Your task to perform on an android device: toggle priority inbox in the gmail app Image 0: 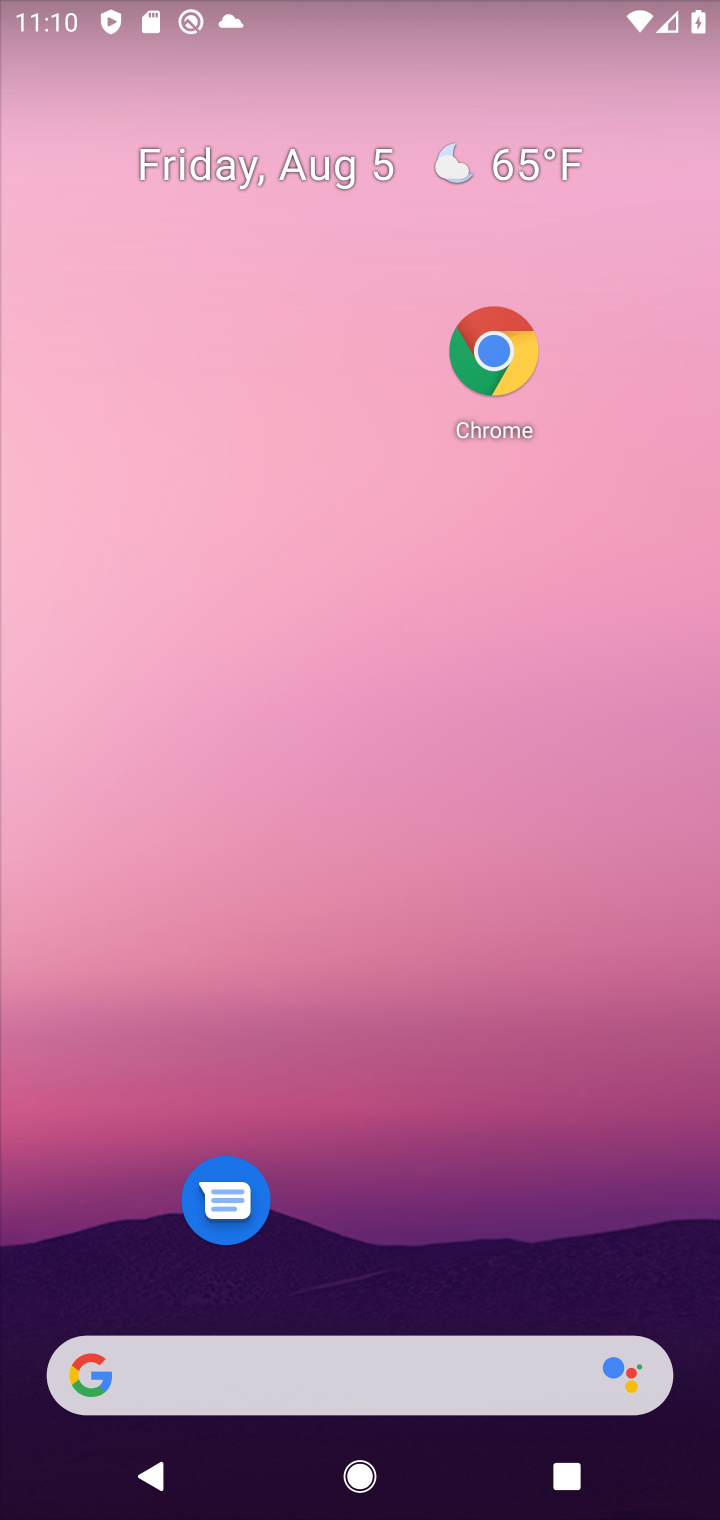
Step 0: drag from (447, 1128) to (591, 0)
Your task to perform on an android device: toggle priority inbox in the gmail app Image 1: 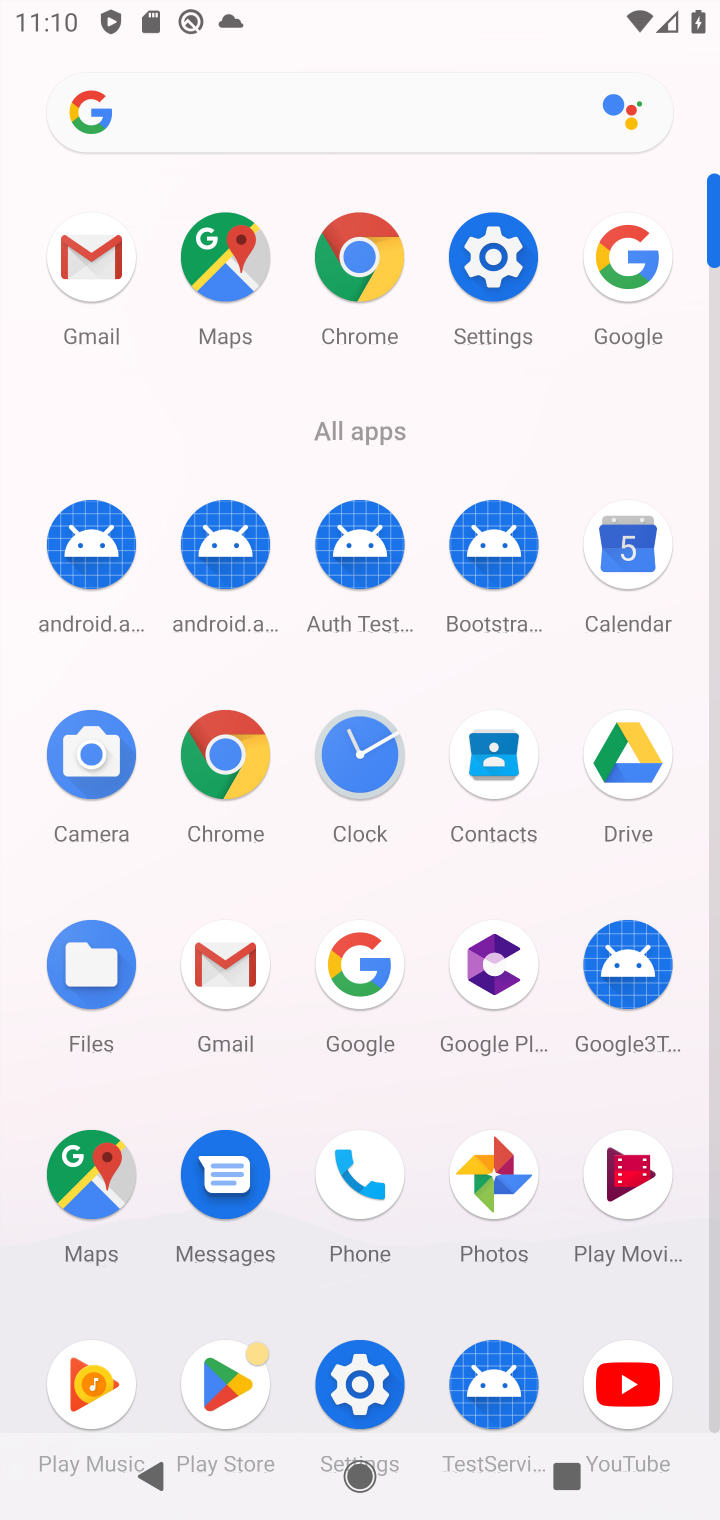
Step 1: click (237, 974)
Your task to perform on an android device: toggle priority inbox in the gmail app Image 2: 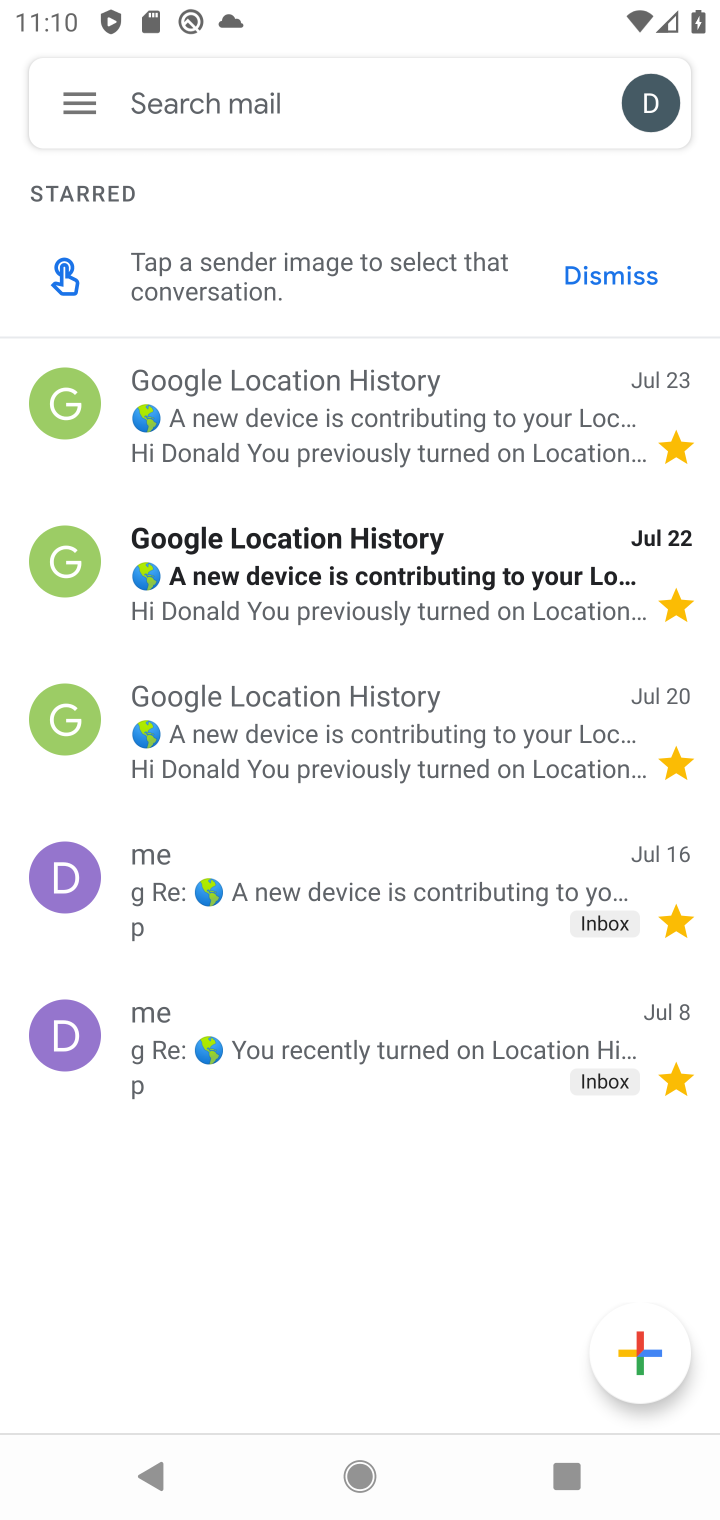
Step 2: click (83, 107)
Your task to perform on an android device: toggle priority inbox in the gmail app Image 3: 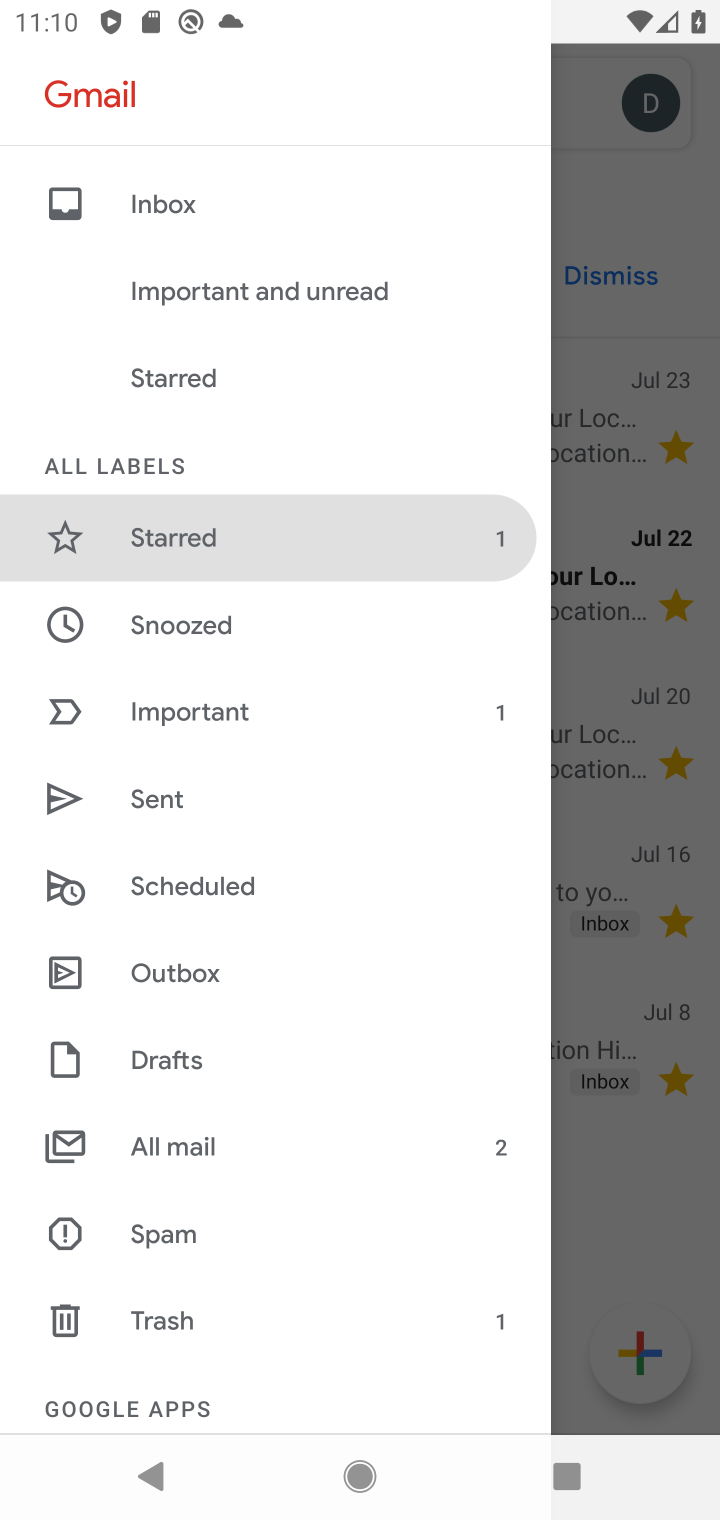
Step 3: drag from (238, 1272) to (335, 459)
Your task to perform on an android device: toggle priority inbox in the gmail app Image 4: 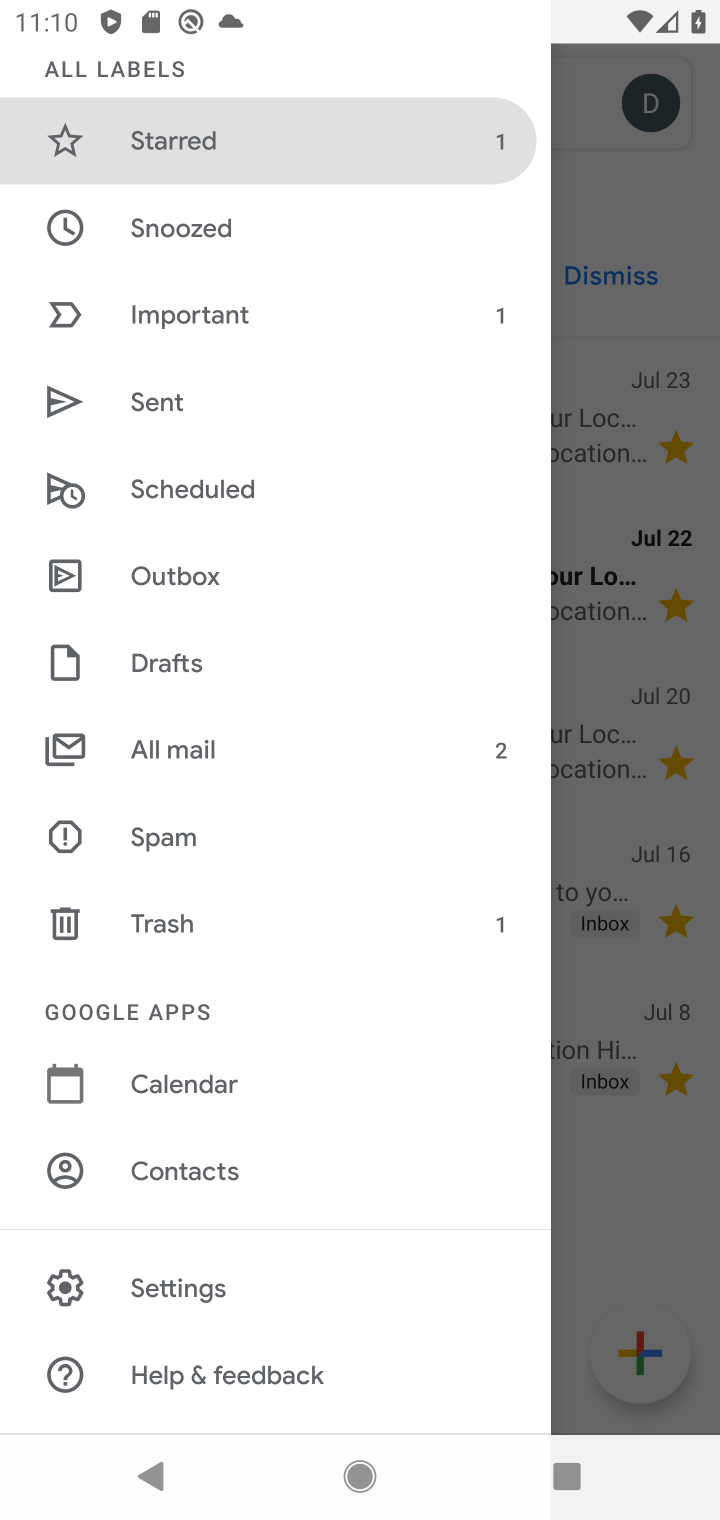
Step 4: click (174, 1299)
Your task to perform on an android device: toggle priority inbox in the gmail app Image 5: 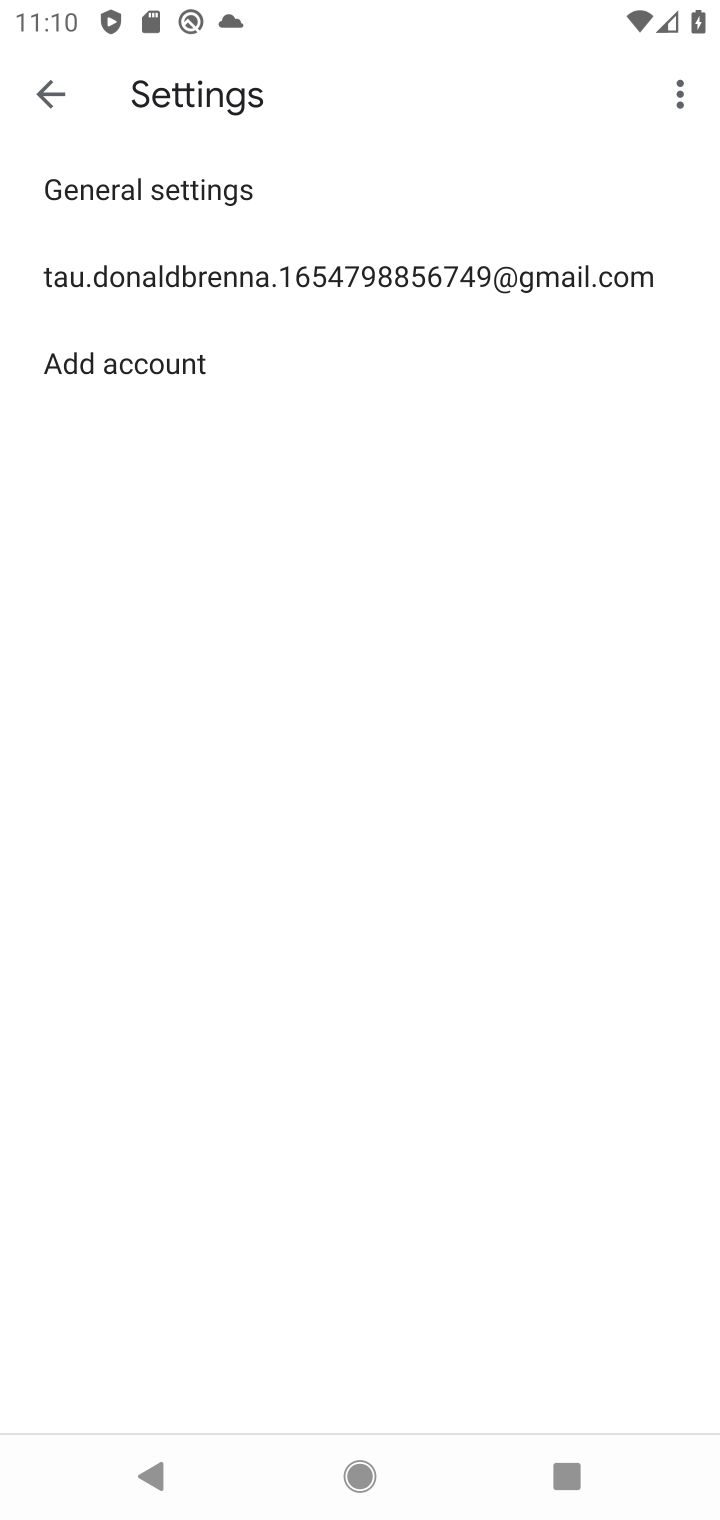
Step 5: click (188, 264)
Your task to perform on an android device: toggle priority inbox in the gmail app Image 6: 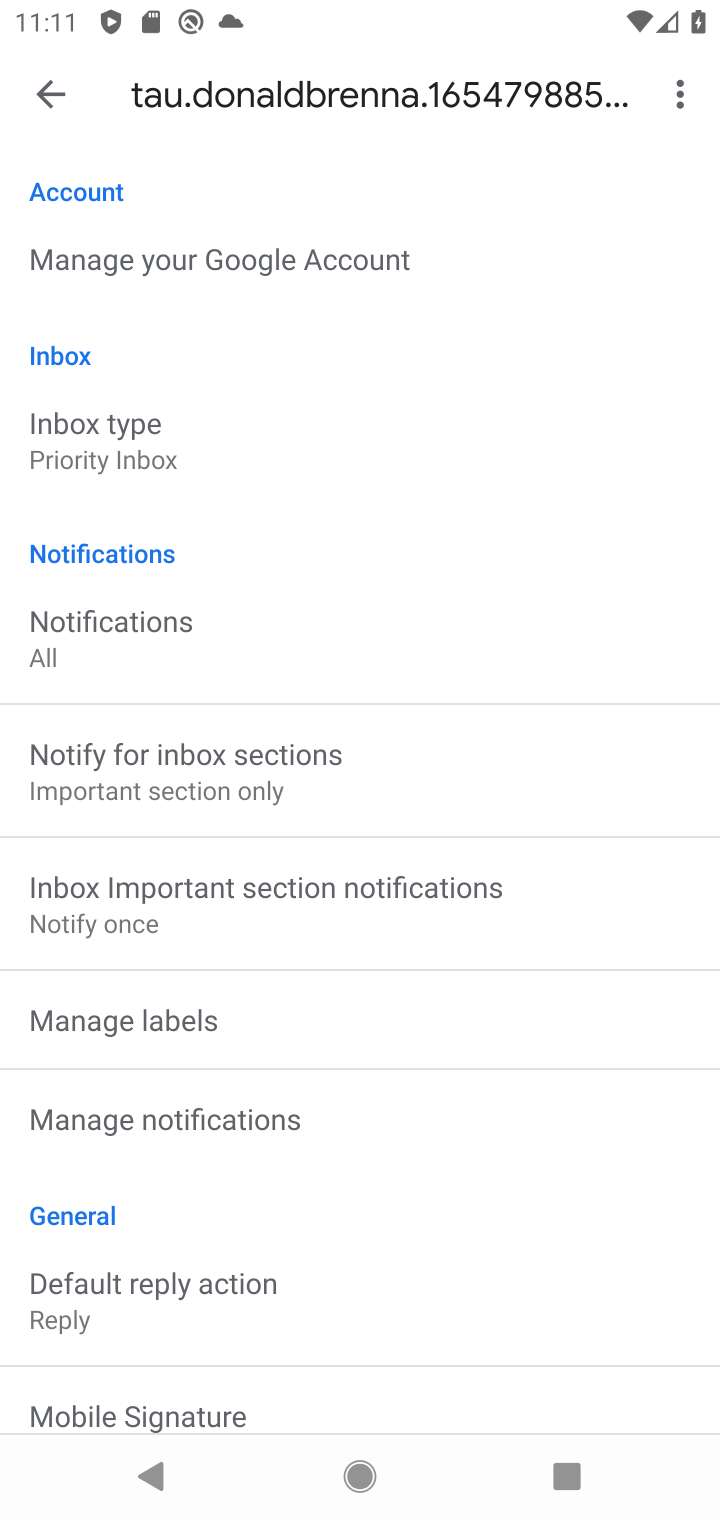
Step 6: drag from (134, 823) to (181, 441)
Your task to perform on an android device: toggle priority inbox in the gmail app Image 7: 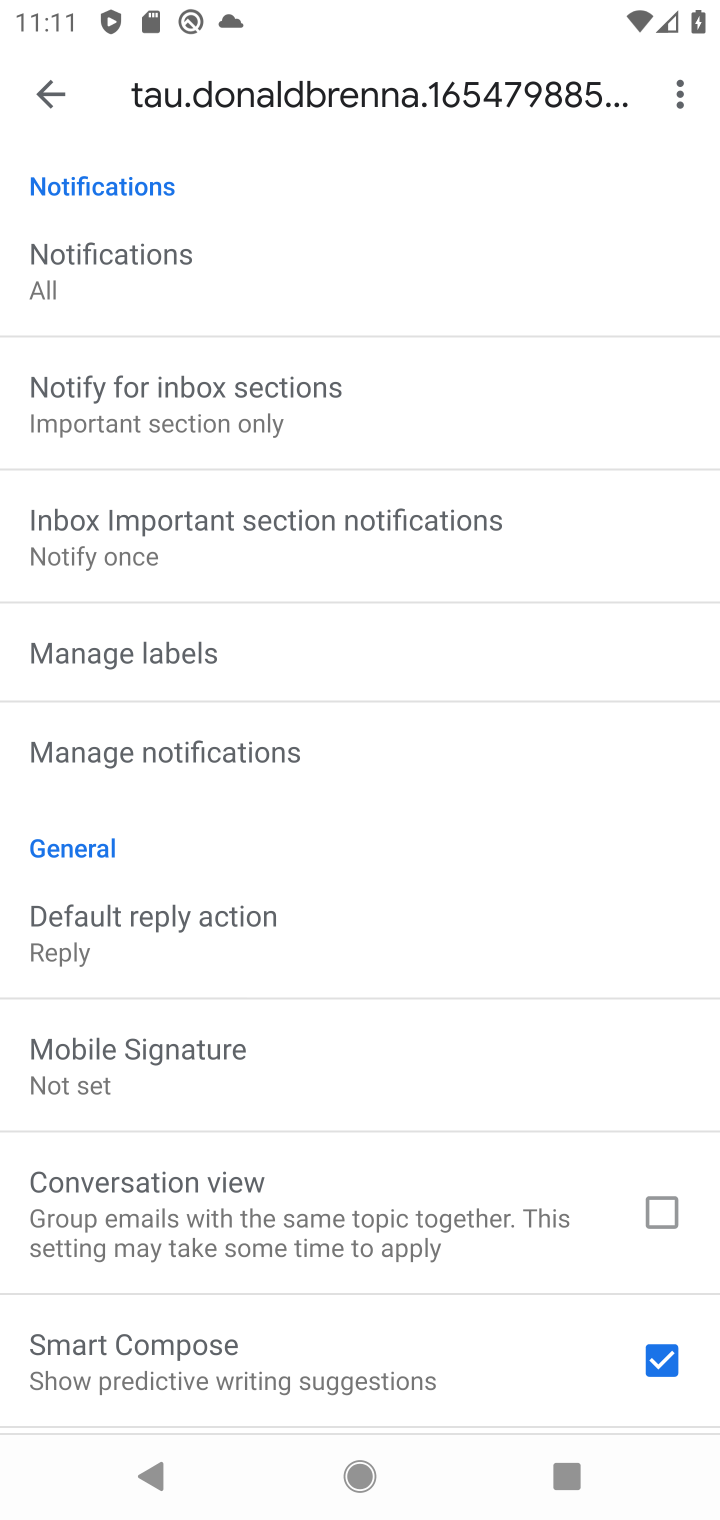
Step 7: drag from (212, 643) to (200, 1118)
Your task to perform on an android device: toggle priority inbox in the gmail app Image 8: 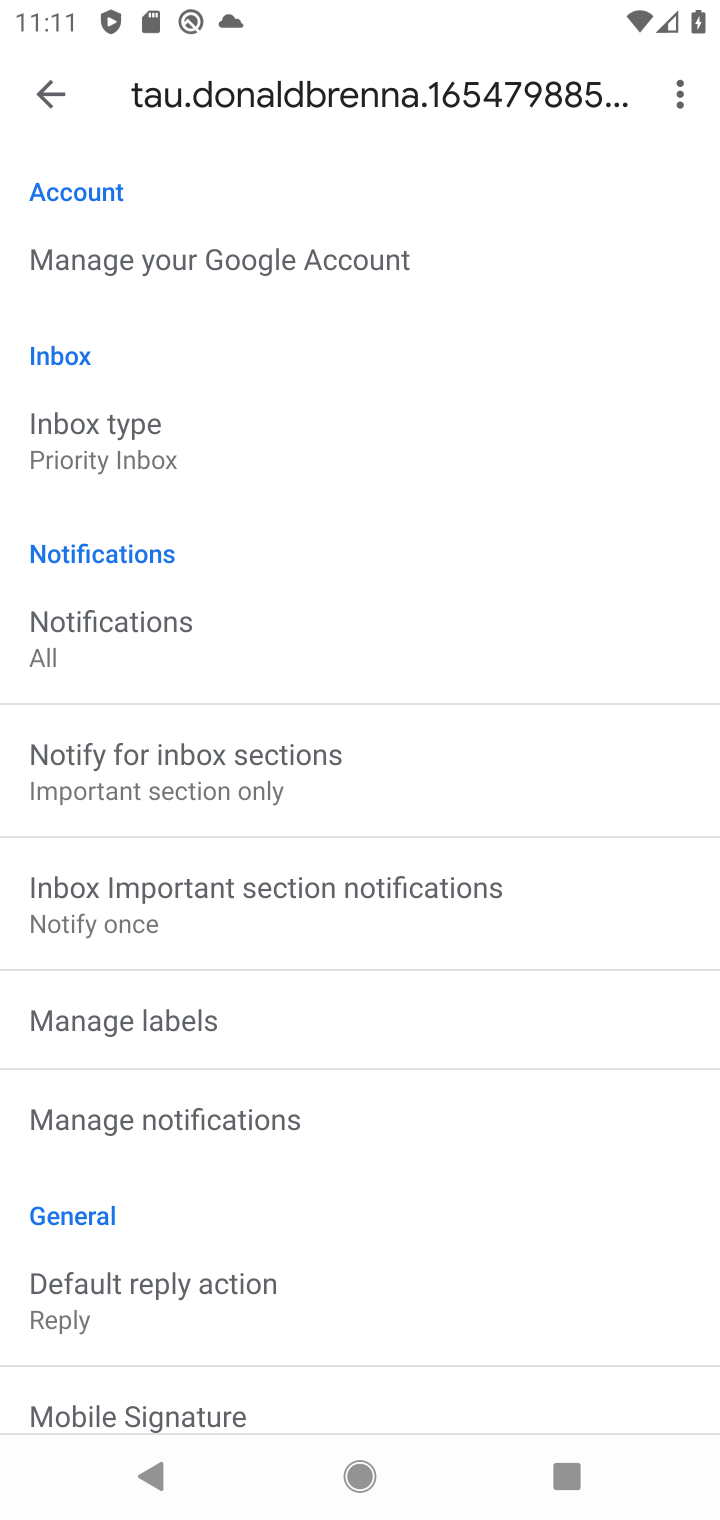
Step 8: click (196, 459)
Your task to perform on an android device: toggle priority inbox in the gmail app Image 9: 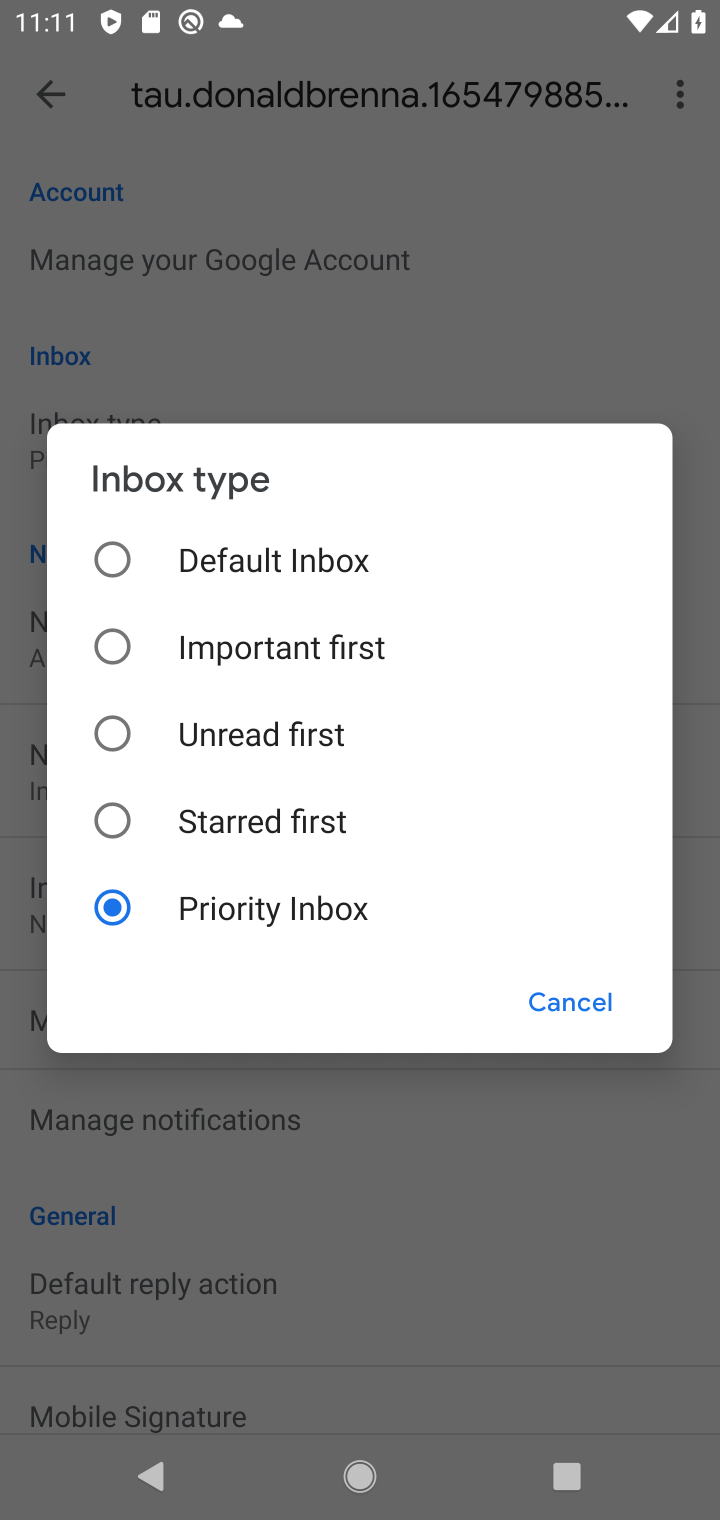
Step 9: click (247, 542)
Your task to perform on an android device: toggle priority inbox in the gmail app Image 10: 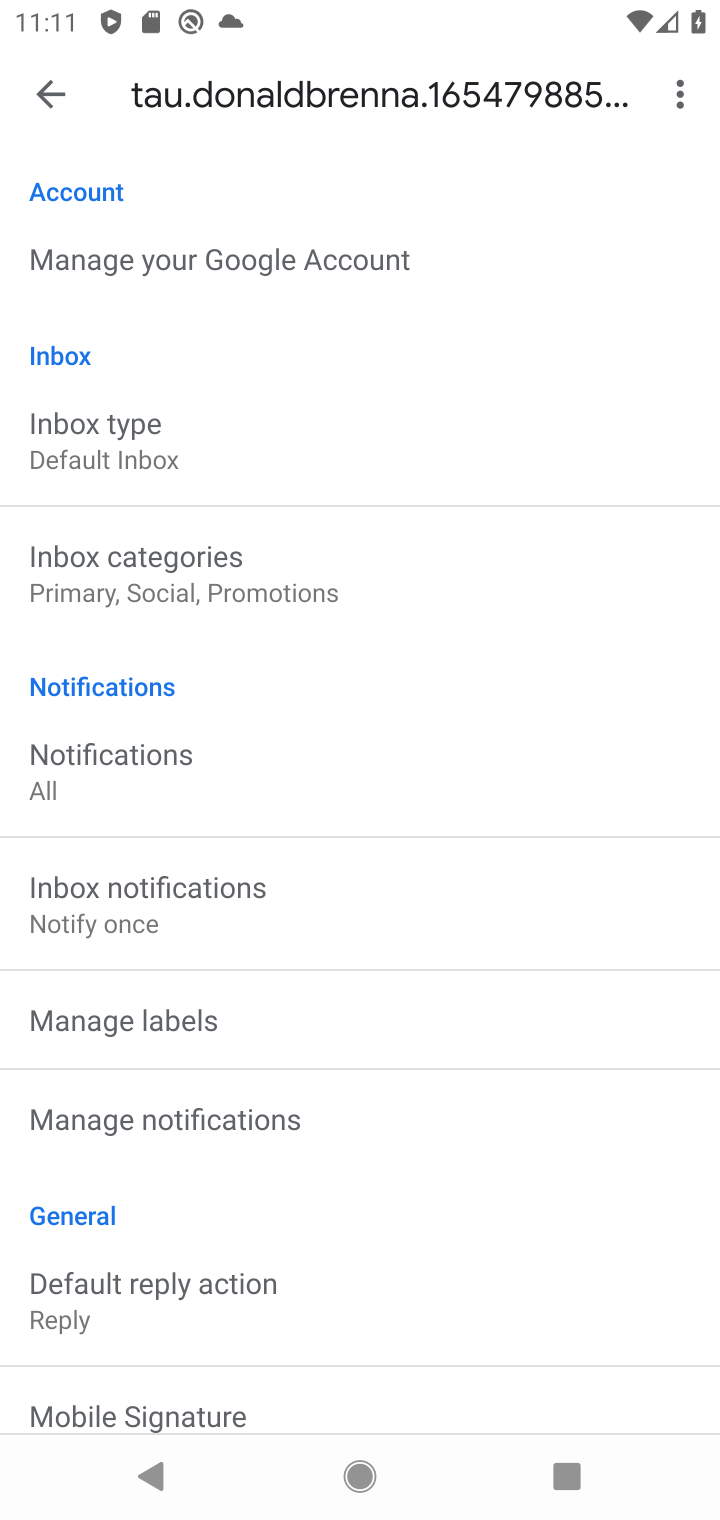
Step 10: task complete